Your task to perform on an android device: turn on bluetooth scan Image 0: 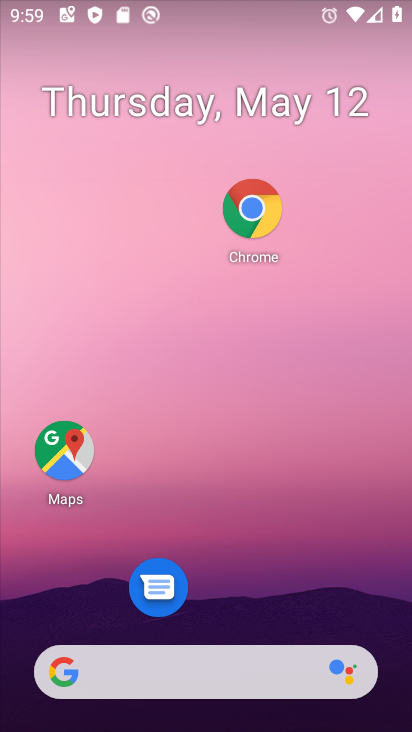
Step 0: drag from (293, 541) to (324, 171)
Your task to perform on an android device: turn on bluetooth scan Image 1: 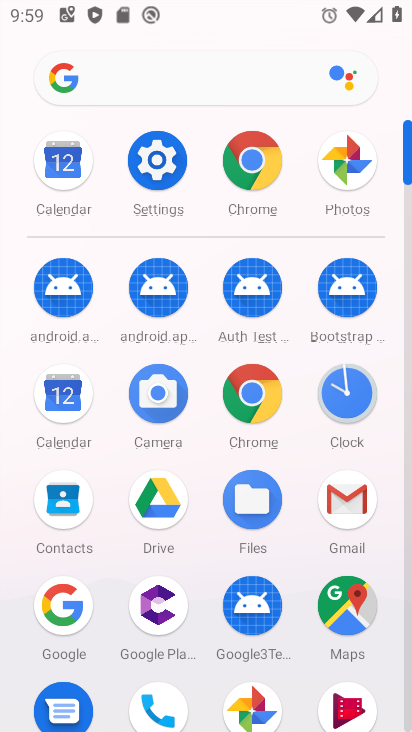
Step 1: click (148, 157)
Your task to perform on an android device: turn on bluetooth scan Image 2: 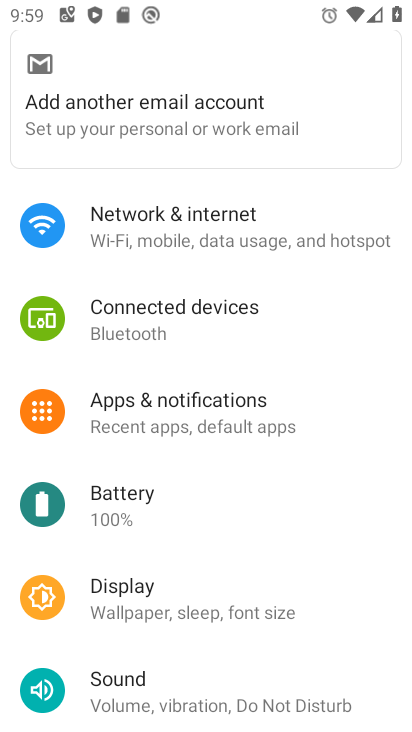
Step 2: drag from (227, 153) to (186, 587)
Your task to perform on an android device: turn on bluetooth scan Image 3: 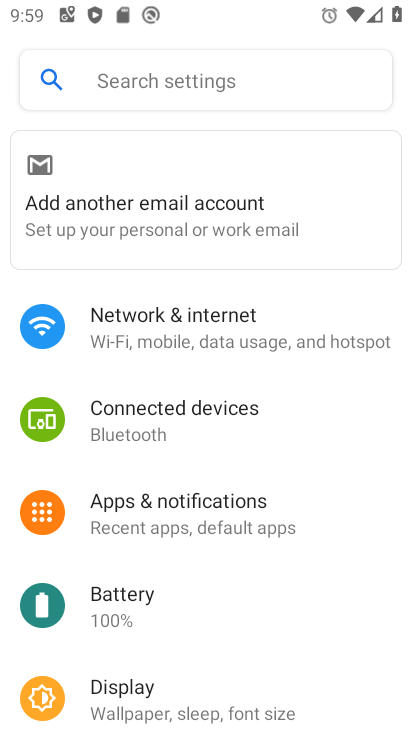
Step 3: click (226, 76)
Your task to perform on an android device: turn on bluetooth scan Image 4: 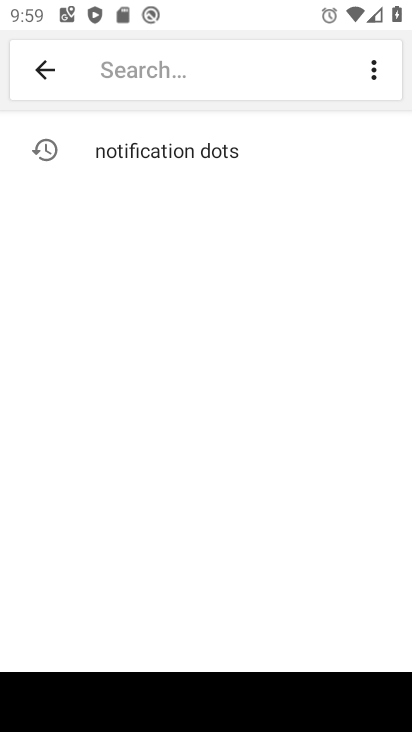
Step 4: type "bluetooth scan"
Your task to perform on an android device: turn on bluetooth scan Image 5: 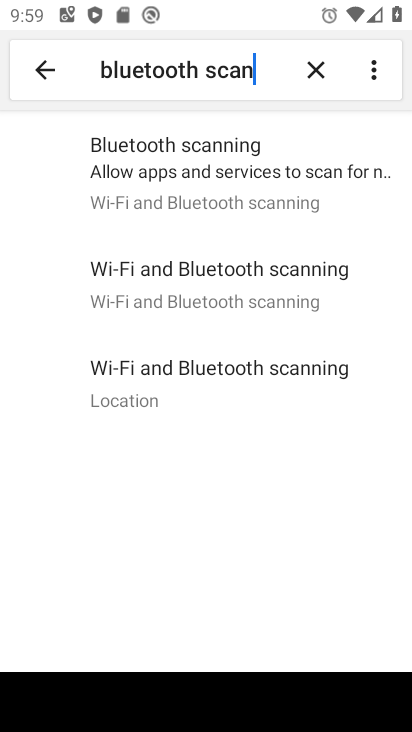
Step 5: click (271, 189)
Your task to perform on an android device: turn on bluetooth scan Image 6: 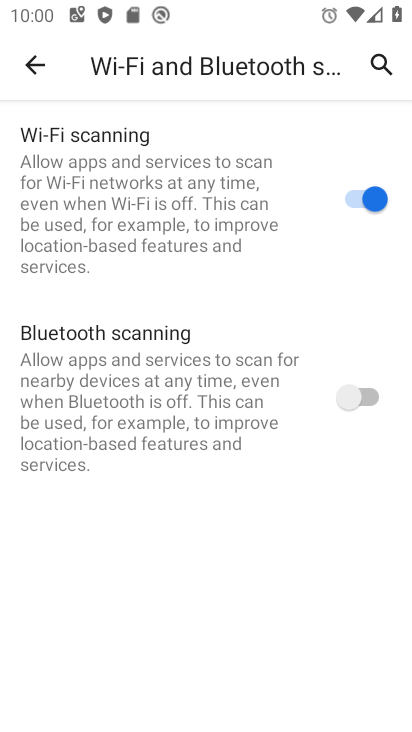
Step 6: task complete